Your task to perform on an android device: Open Google Chrome Image 0: 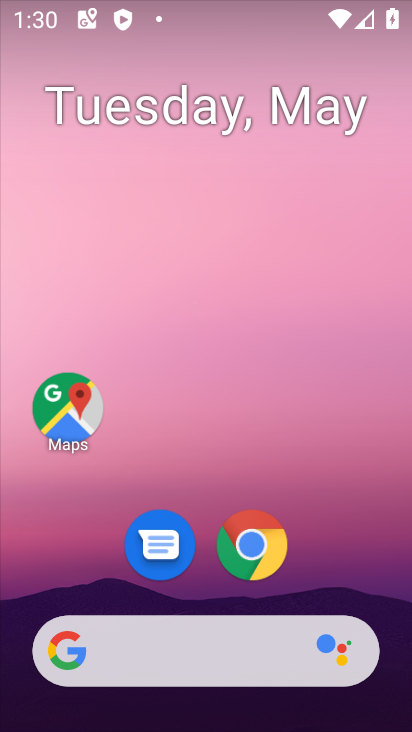
Step 0: click (253, 543)
Your task to perform on an android device: Open Google Chrome Image 1: 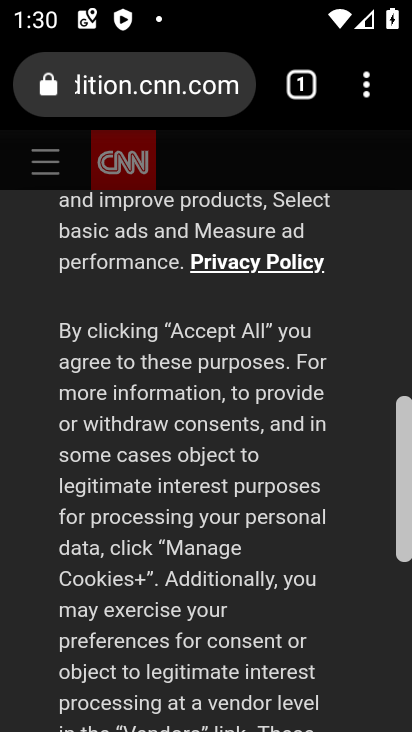
Step 1: task complete